Your task to perform on an android device: Go to Reddit.com Image 0: 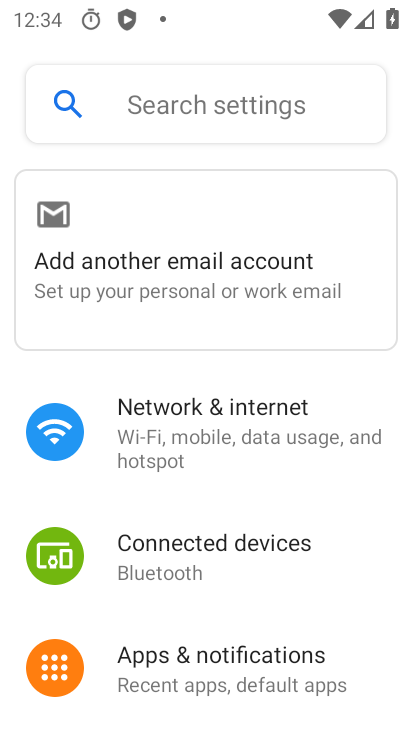
Step 0: press home button
Your task to perform on an android device: Go to Reddit.com Image 1: 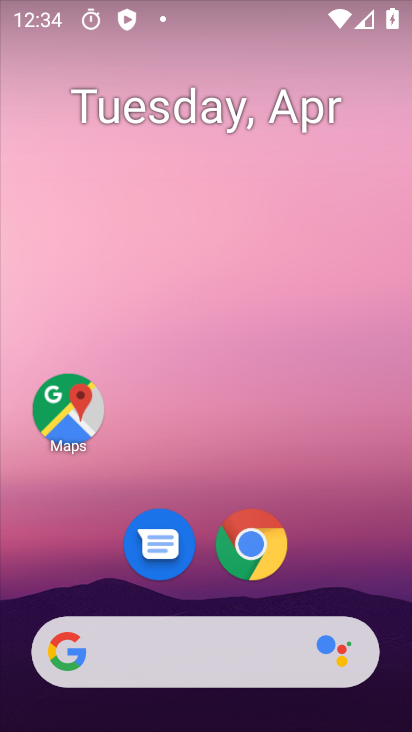
Step 1: click (247, 547)
Your task to perform on an android device: Go to Reddit.com Image 2: 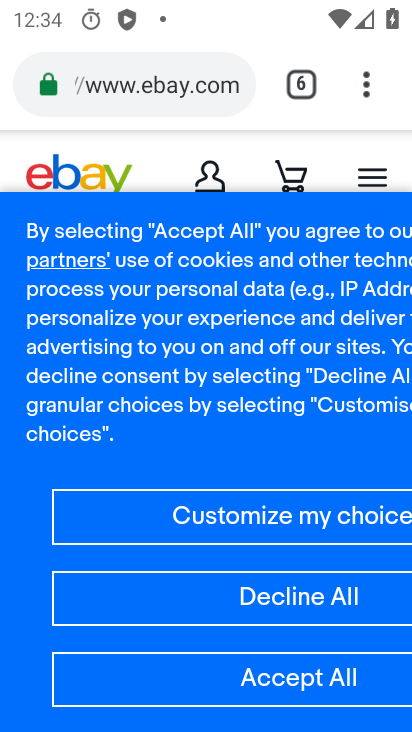
Step 2: click (239, 85)
Your task to perform on an android device: Go to Reddit.com Image 3: 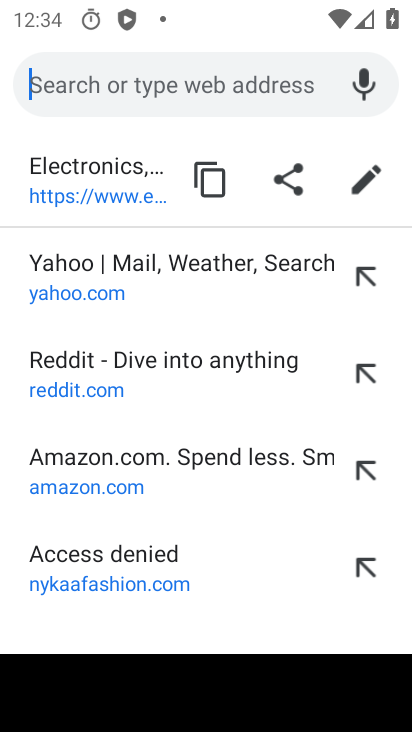
Step 3: click (49, 364)
Your task to perform on an android device: Go to Reddit.com Image 4: 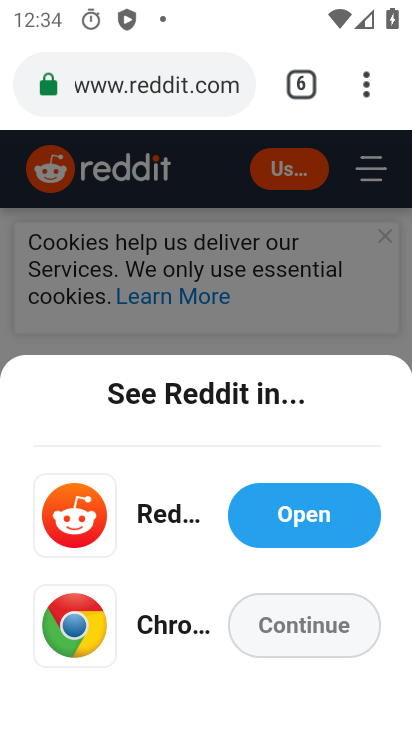
Step 4: task complete